Your task to perform on an android device: View the shopping cart on walmart.com. Add razer blade to the cart on walmart.com Image 0: 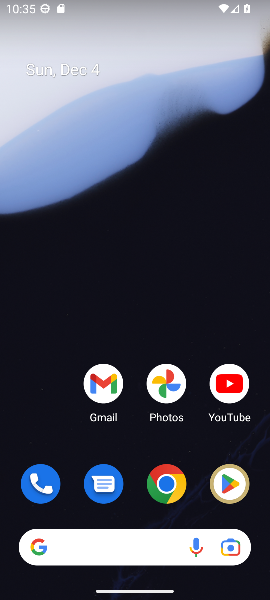
Step 0: click (166, 489)
Your task to perform on an android device: View the shopping cart on walmart.com. Add razer blade to the cart on walmart.com Image 1: 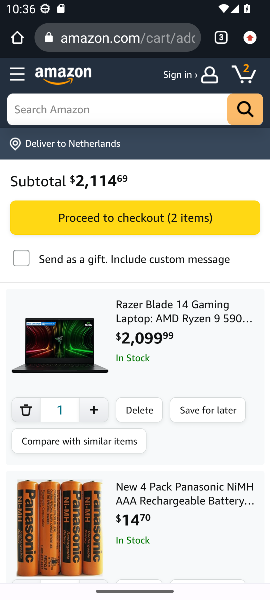
Step 1: click (113, 40)
Your task to perform on an android device: View the shopping cart on walmart.com. Add razer blade to the cart on walmart.com Image 2: 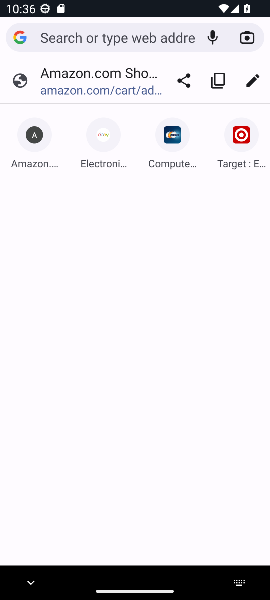
Step 2: type "walmart.com"
Your task to perform on an android device: View the shopping cart on walmart.com. Add razer blade to the cart on walmart.com Image 3: 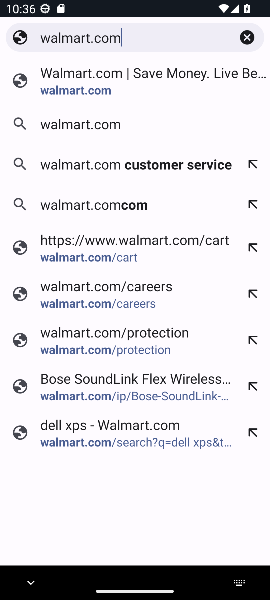
Step 3: click (83, 85)
Your task to perform on an android device: View the shopping cart on walmart.com. Add razer blade to the cart on walmart.com Image 4: 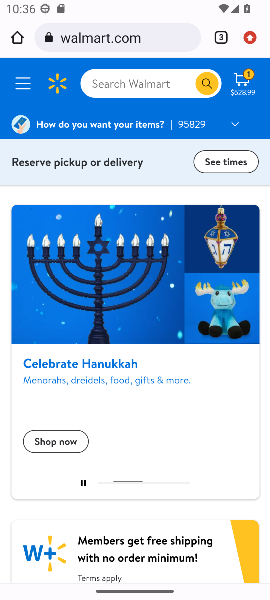
Step 4: click (247, 85)
Your task to perform on an android device: View the shopping cart on walmart.com. Add razer blade to the cart on walmart.com Image 5: 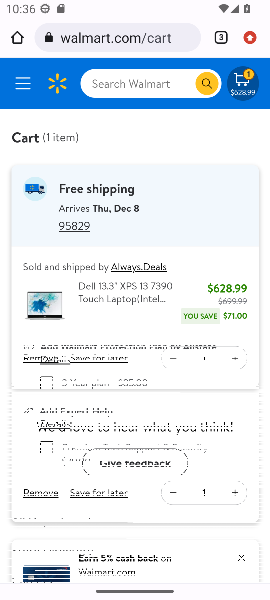
Step 5: click (124, 83)
Your task to perform on an android device: View the shopping cart on walmart.com. Add razer blade to the cart on walmart.com Image 6: 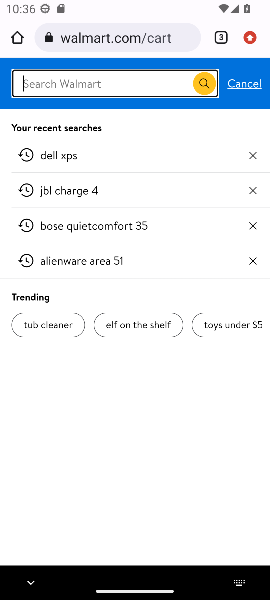
Step 6: type "razer blade"
Your task to perform on an android device: View the shopping cart on walmart.com. Add razer blade to the cart on walmart.com Image 7: 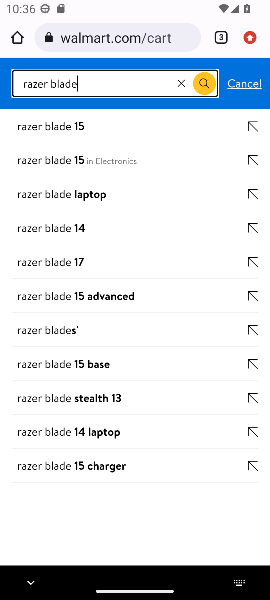
Step 7: click (36, 133)
Your task to perform on an android device: View the shopping cart on walmart.com. Add razer blade to the cart on walmart.com Image 8: 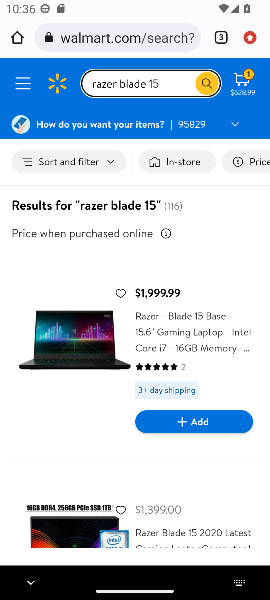
Step 8: drag from (225, 350) to (226, 194)
Your task to perform on an android device: View the shopping cart on walmart.com. Add razer blade to the cart on walmart.com Image 9: 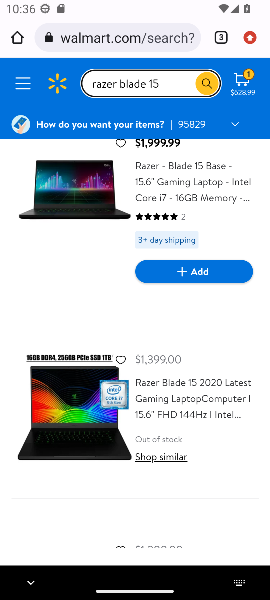
Step 9: click (191, 276)
Your task to perform on an android device: View the shopping cart on walmart.com. Add razer blade to the cart on walmart.com Image 10: 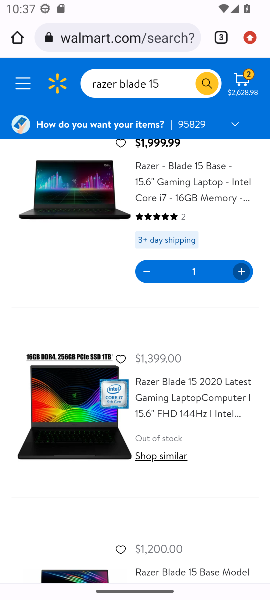
Step 10: task complete